Your task to perform on an android device: Open the Play Movies app and select the watchlist tab. Image 0: 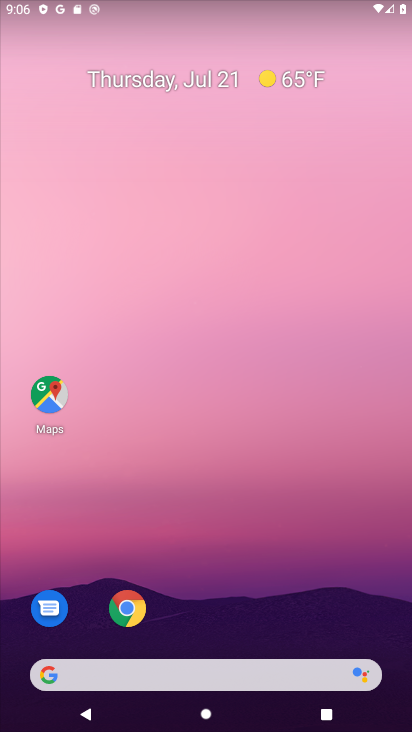
Step 0: drag from (257, 583) to (274, 270)
Your task to perform on an android device: Open the Play Movies app and select the watchlist tab. Image 1: 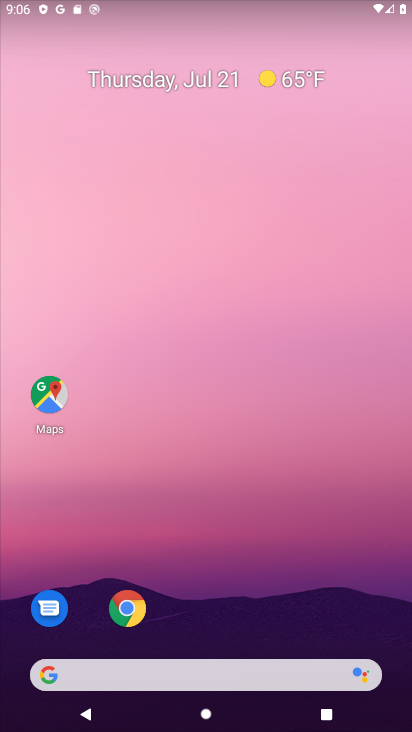
Step 1: drag from (288, 363) to (338, 184)
Your task to perform on an android device: Open the Play Movies app and select the watchlist tab. Image 2: 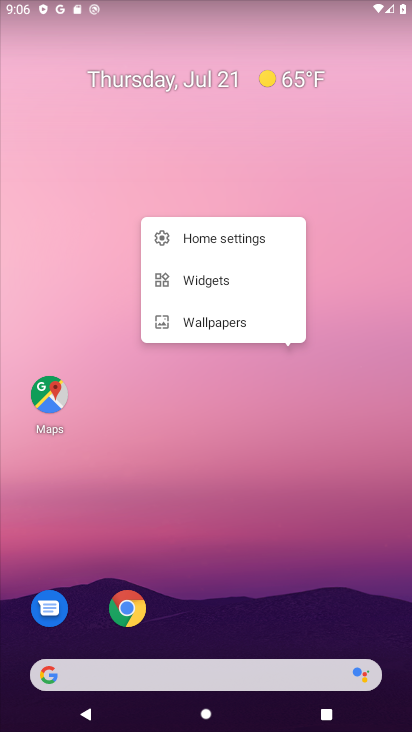
Step 2: drag from (266, 165) to (245, 471)
Your task to perform on an android device: Open the Play Movies app and select the watchlist tab. Image 3: 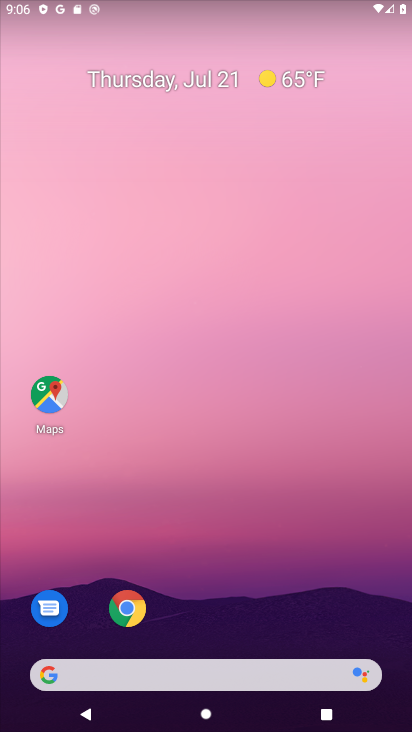
Step 3: drag from (202, 311) to (215, 251)
Your task to perform on an android device: Open the Play Movies app and select the watchlist tab. Image 4: 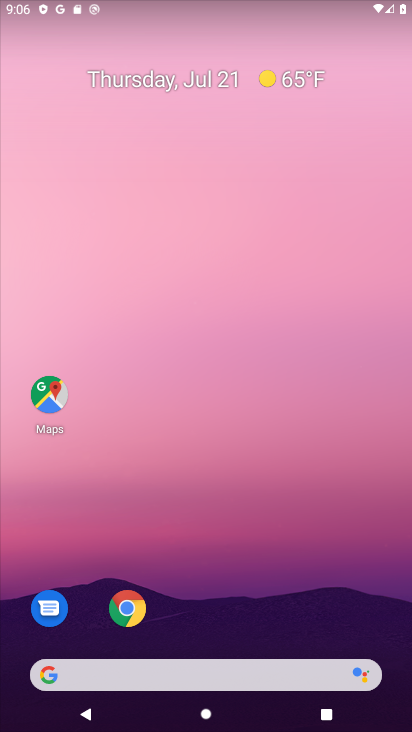
Step 4: drag from (240, 529) to (300, 241)
Your task to perform on an android device: Open the Play Movies app and select the watchlist tab. Image 5: 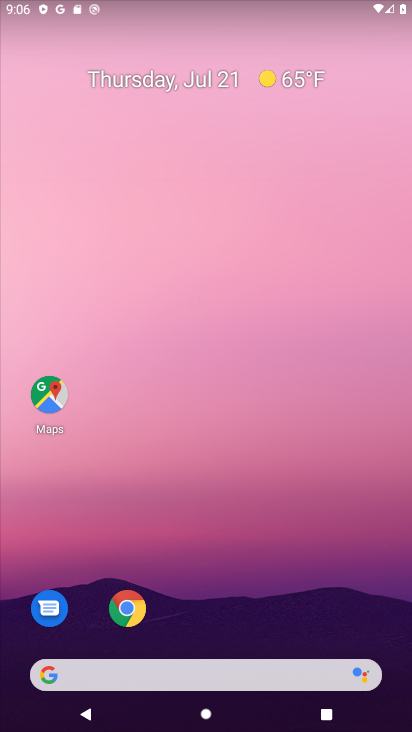
Step 5: click (272, 279)
Your task to perform on an android device: Open the Play Movies app and select the watchlist tab. Image 6: 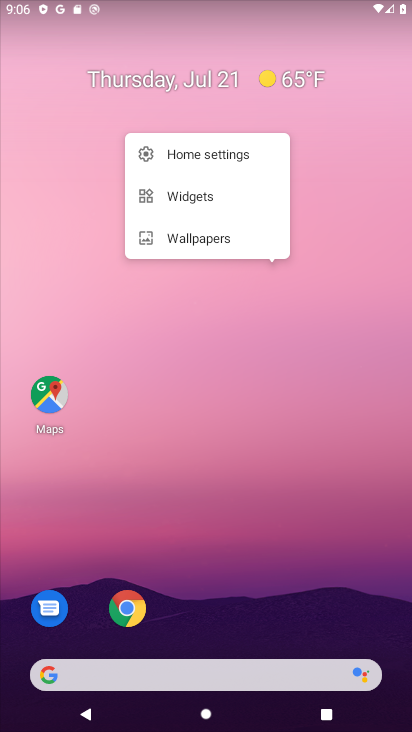
Step 6: drag from (276, 396) to (317, 146)
Your task to perform on an android device: Open the Play Movies app and select the watchlist tab. Image 7: 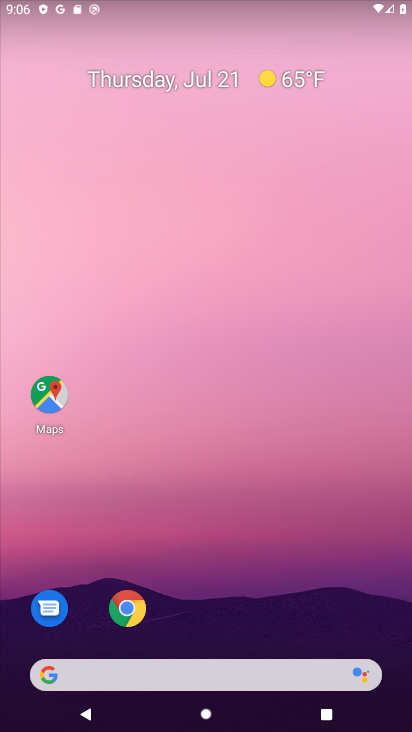
Step 7: click (237, 452)
Your task to perform on an android device: Open the Play Movies app and select the watchlist tab. Image 8: 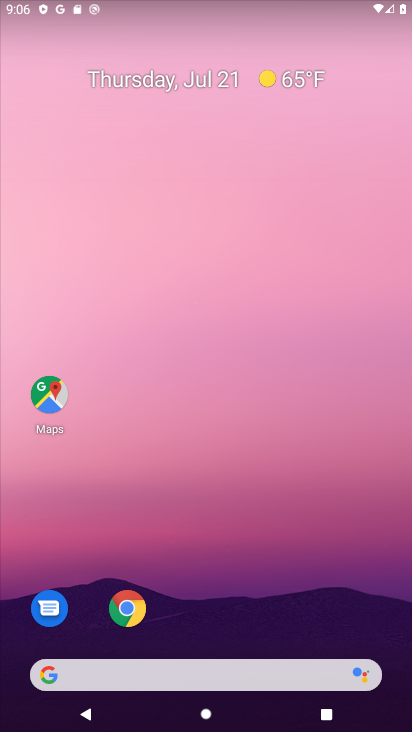
Step 8: drag from (215, 566) to (251, 198)
Your task to perform on an android device: Open the Play Movies app and select the watchlist tab. Image 9: 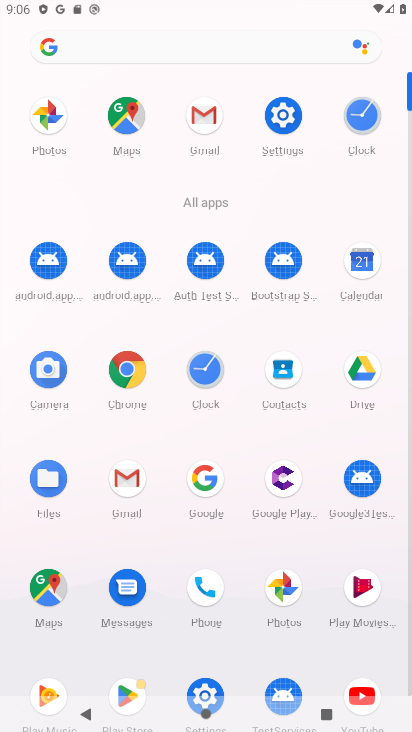
Step 9: click (354, 589)
Your task to perform on an android device: Open the Play Movies app and select the watchlist tab. Image 10: 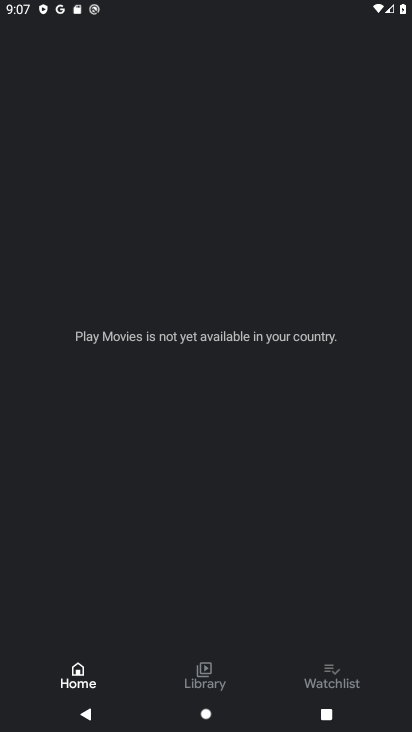
Step 10: task complete